Your task to perform on an android device: Go to CNN.com Image 0: 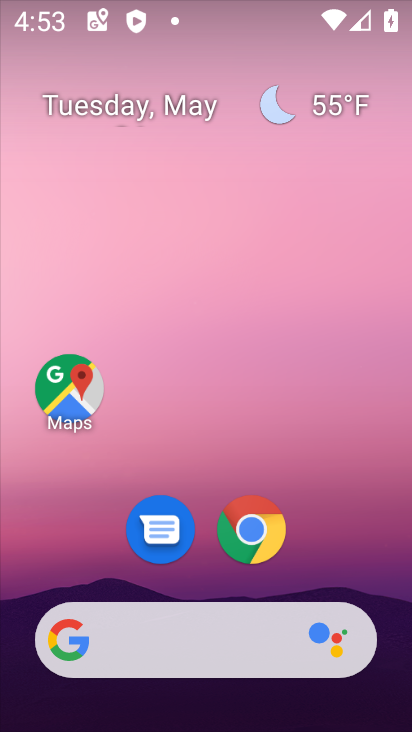
Step 0: click (221, 422)
Your task to perform on an android device: Go to CNN.com Image 1: 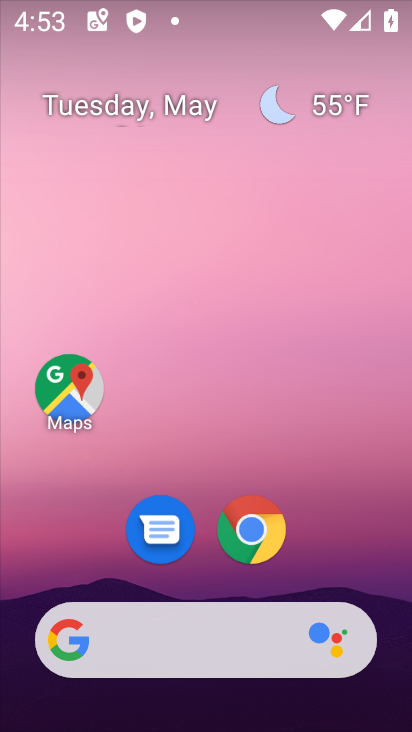
Step 1: click (190, 93)
Your task to perform on an android device: Go to CNN.com Image 2: 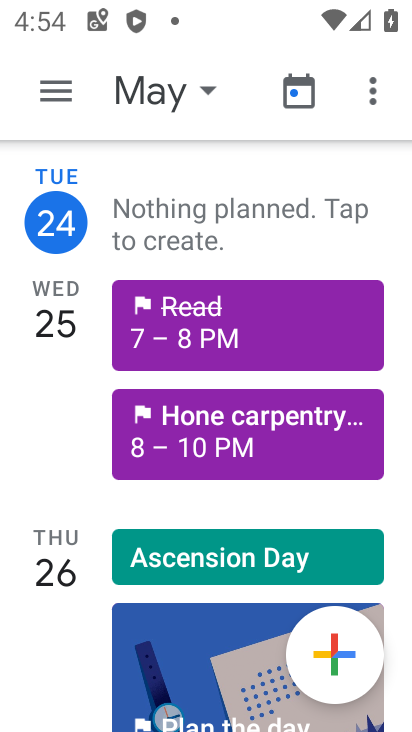
Step 2: press back button
Your task to perform on an android device: Go to CNN.com Image 3: 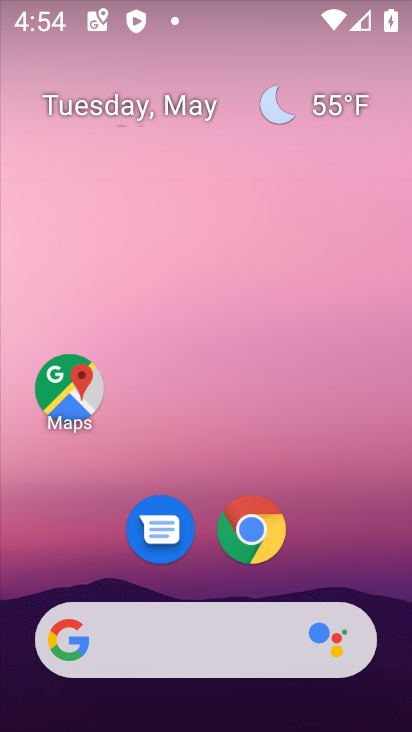
Step 3: click (125, 24)
Your task to perform on an android device: Go to CNN.com Image 4: 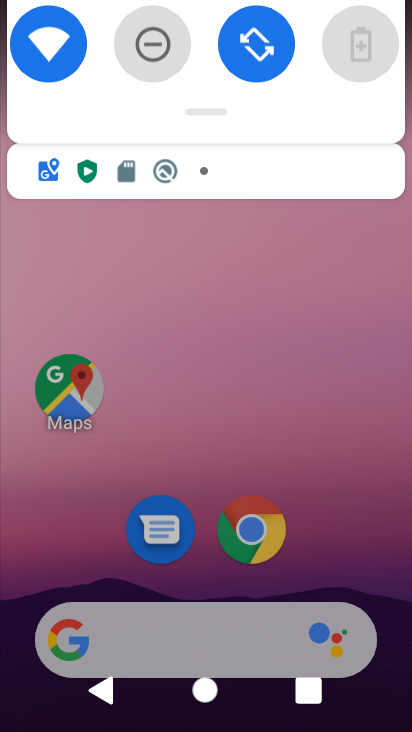
Step 4: drag from (231, 584) to (140, 149)
Your task to perform on an android device: Go to CNN.com Image 5: 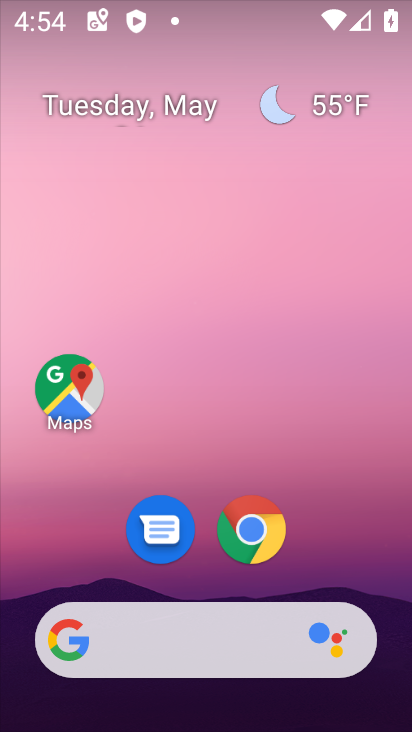
Step 5: drag from (219, 696) to (108, 17)
Your task to perform on an android device: Go to CNN.com Image 6: 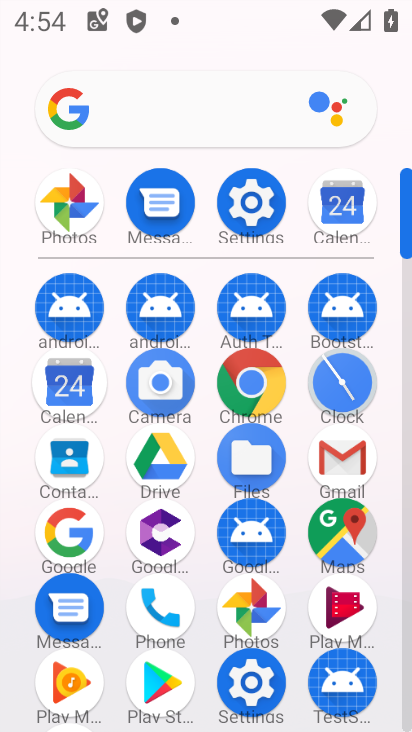
Step 6: click (248, 391)
Your task to perform on an android device: Go to CNN.com Image 7: 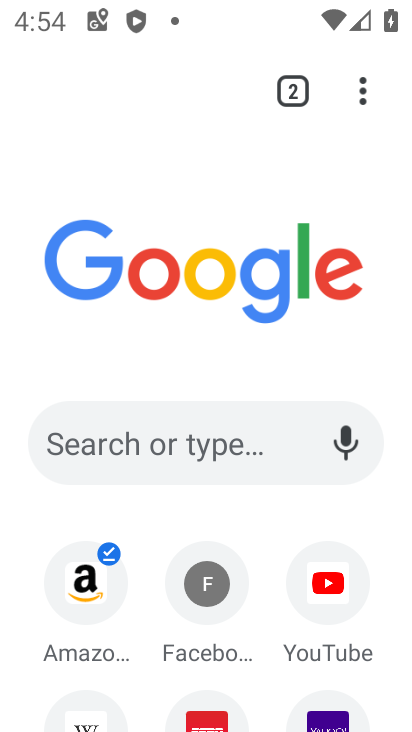
Step 7: click (87, 448)
Your task to perform on an android device: Go to CNN.com Image 8: 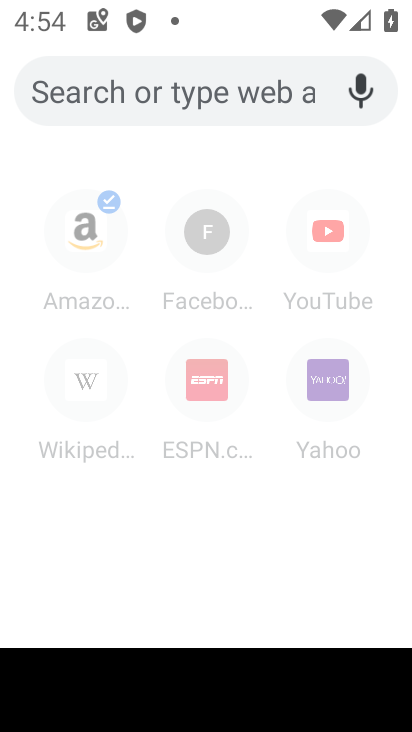
Step 8: click (36, 87)
Your task to perform on an android device: Go to CNN.com Image 9: 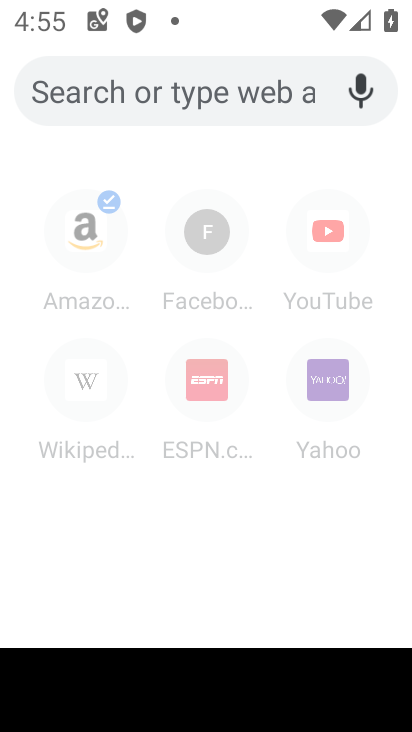
Step 9: type "cnn.com"
Your task to perform on an android device: Go to CNN.com Image 10: 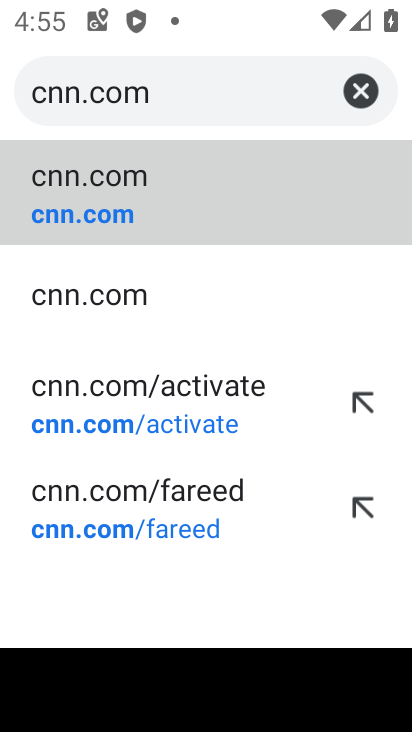
Step 10: click (86, 206)
Your task to perform on an android device: Go to CNN.com Image 11: 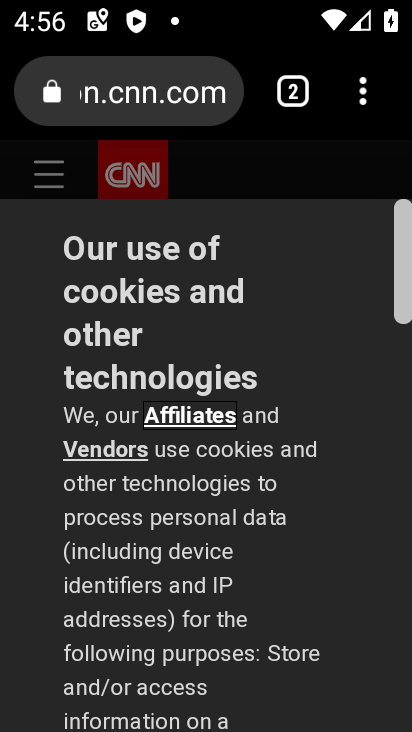
Step 11: task complete